Your task to perform on an android device: Open Google Chrome and click the shortcut for Amazon.com Image 0: 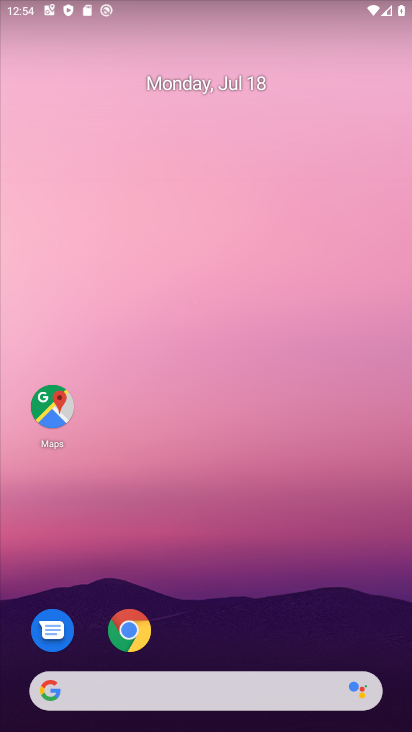
Step 0: click (144, 634)
Your task to perform on an android device: Open Google Chrome and click the shortcut for Amazon.com Image 1: 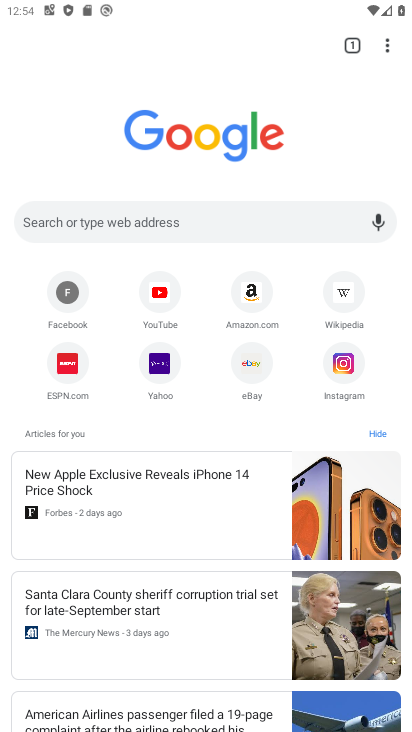
Step 1: click (260, 291)
Your task to perform on an android device: Open Google Chrome and click the shortcut for Amazon.com Image 2: 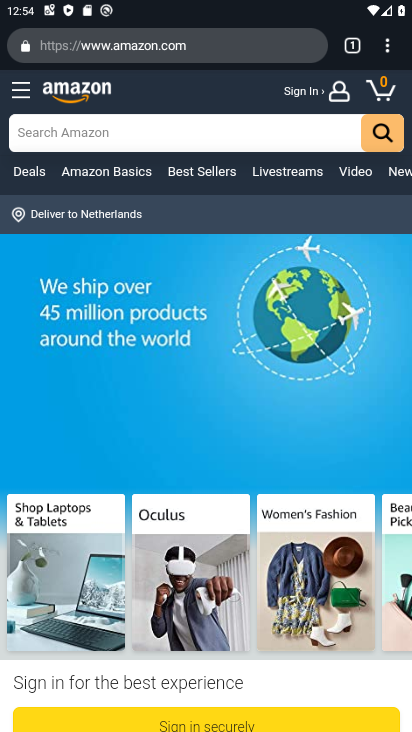
Step 2: task complete